Your task to perform on an android device: Go to internet settings Image 0: 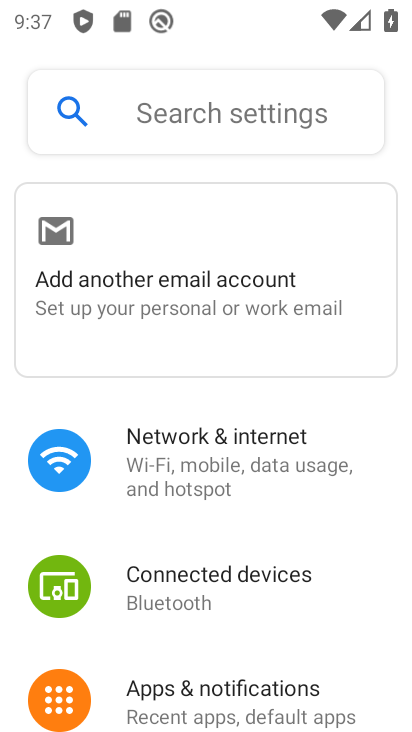
Step 0: press home button
Your task to perform on an android device: Go to internet settings Image 1: 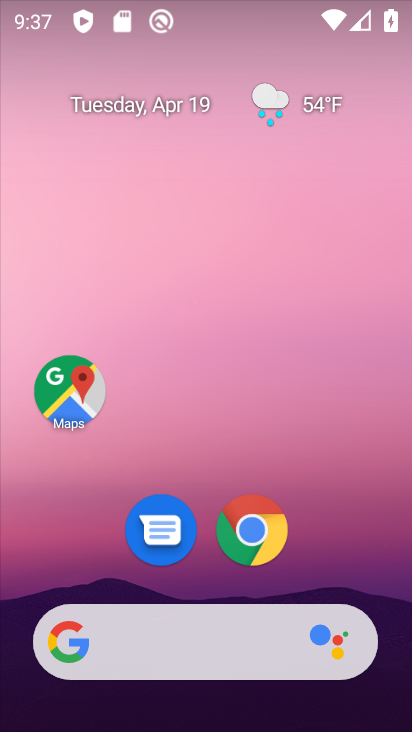
Step 1: drag from (346, 512) to (281, 108)
Your task to perform on an android device: Go to internet settings Image 2: 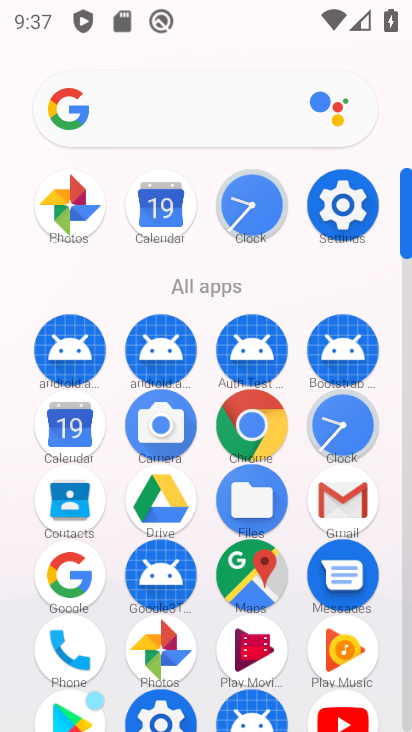
Step 2: click (339, 205)
Your task to perform on an android device: Go to internet settings Image 3: 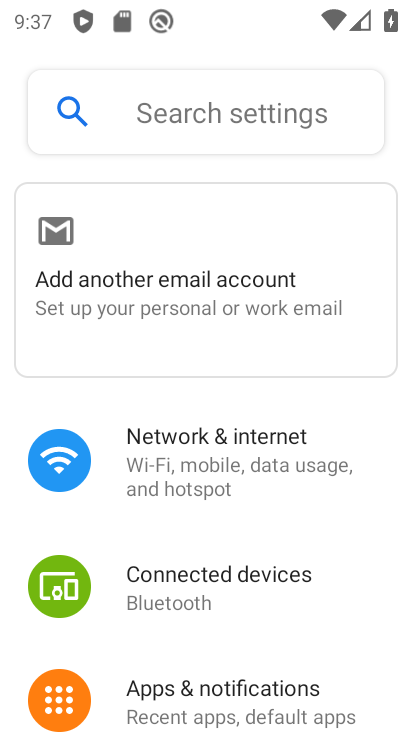
Step 3: click (192, 459)
Your task to perform on an android device: Go to internet settings Image 4: 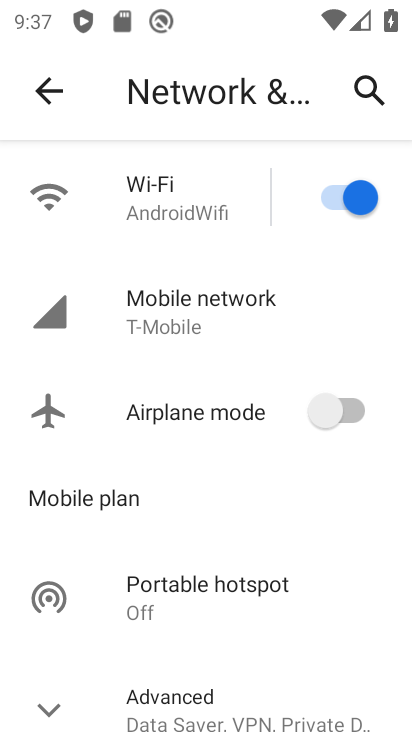
Step 4: click (171, 199)
Your task to perform on an android device: Go to internet settings Image 5: 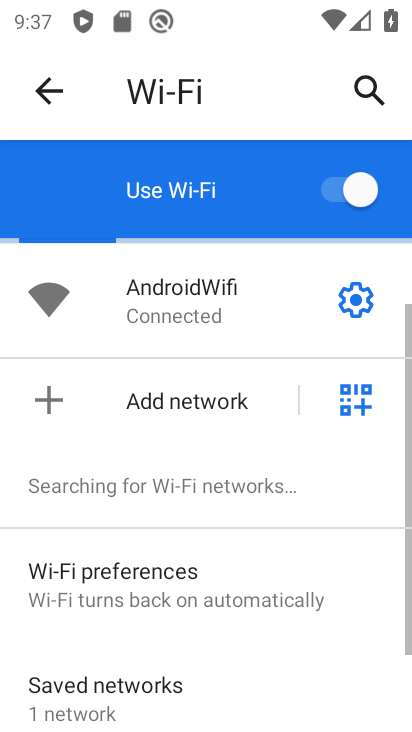
Step 5: click (356, 297)
Your task to perform on an android device: Go to internet settings Image 6: 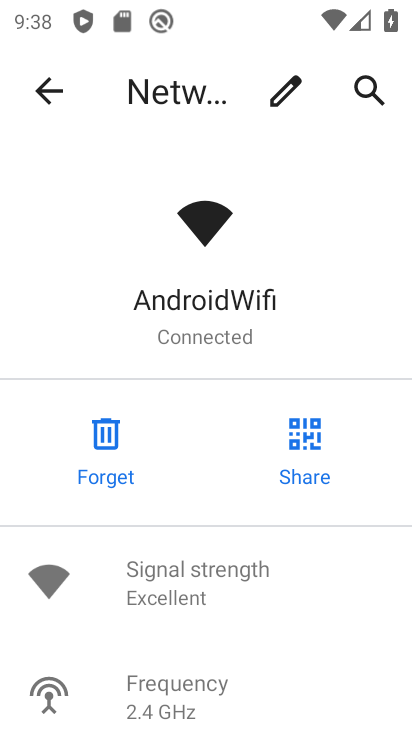
Step 6: task complete